Your task to perform on an android device: Open the calendar app, open the side menu, and click the "Day" option Image 0: 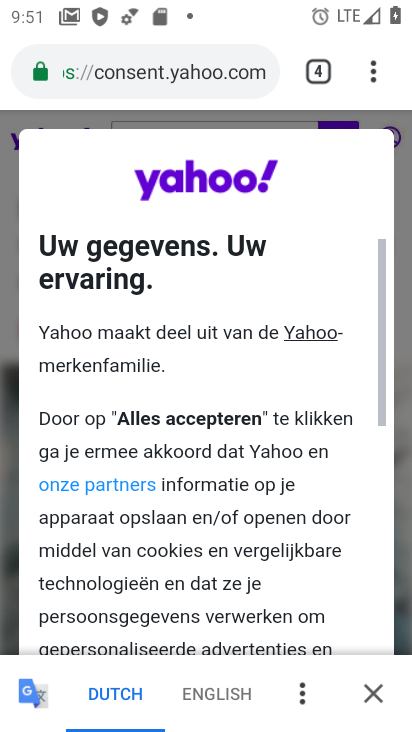
Step 0: press home button
Your task to perform on an android device: Open the calendar app, open the side menu, and click the "Day" option Image 1: 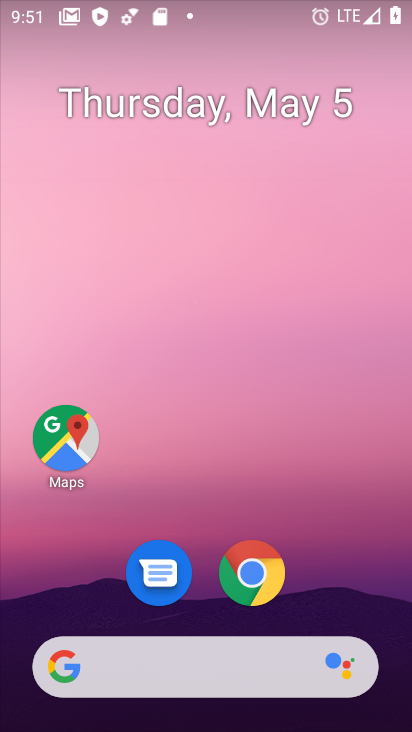
Step 1: drag from (235, 543) to (354, 31)
Your task to perform on an android device: Open the calendar app, open the side menu, and click the "Day" option Image 2: 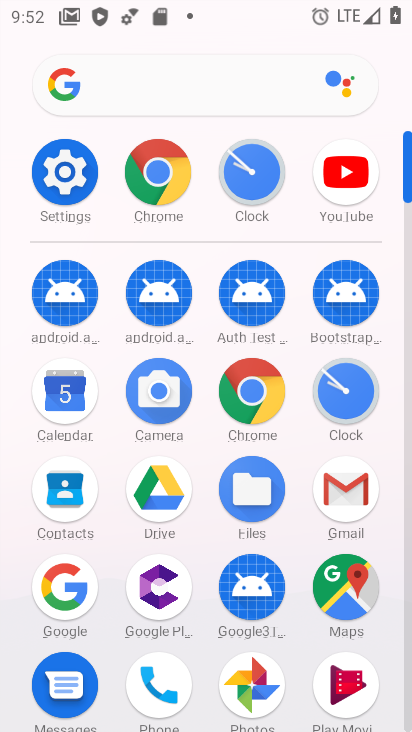
Step 2: click (72, 387)
Your task to perform on an android device: Open the calendar app, open the side menu, and click the "Day" option Image 3: 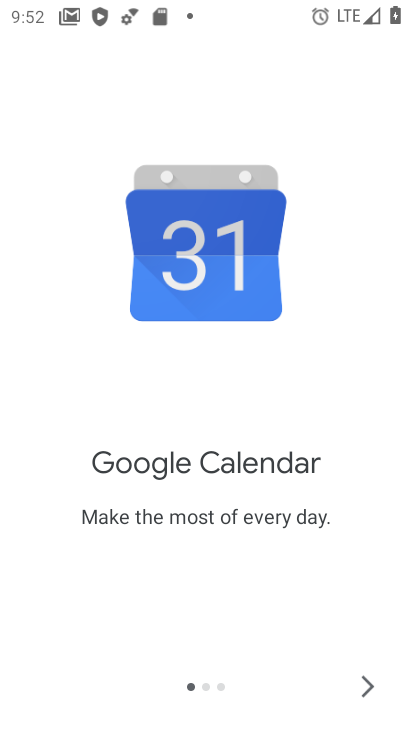
Step 3: click (378, 691)
Your task to perform on an android device: Open the calendar app, open the side menu, and click the "Day" option Image 4: 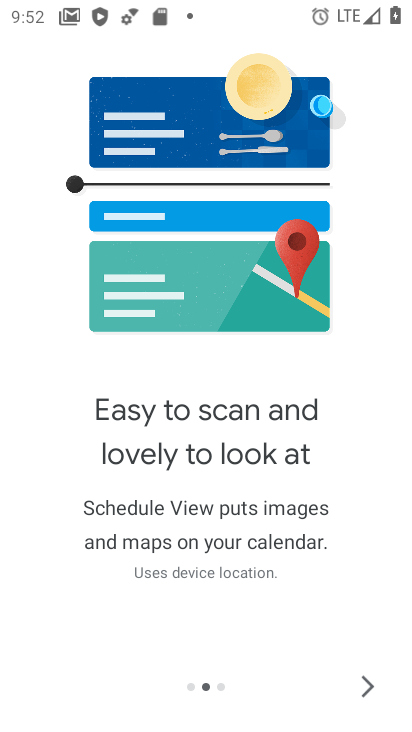
Step 4: click (371, 686)
Your task to perform on an android device: Open the calendar app, open the side menu, and click the "Day" option Image 5: 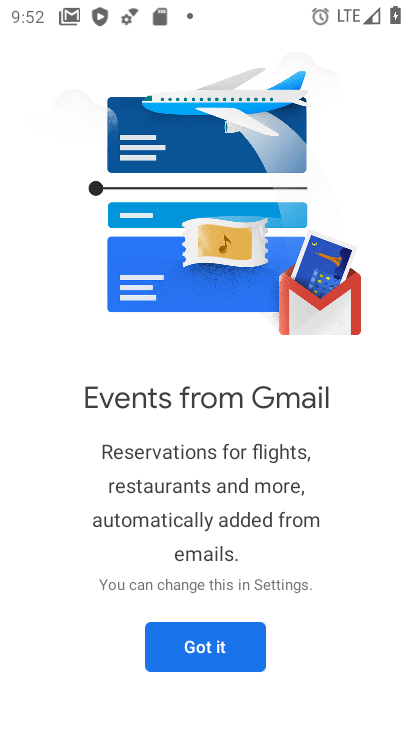
Step 5: click (221, 649)
Your task to perform on an android device: Open the calendar app, open the side menu, and click the "Day" option Image 6: 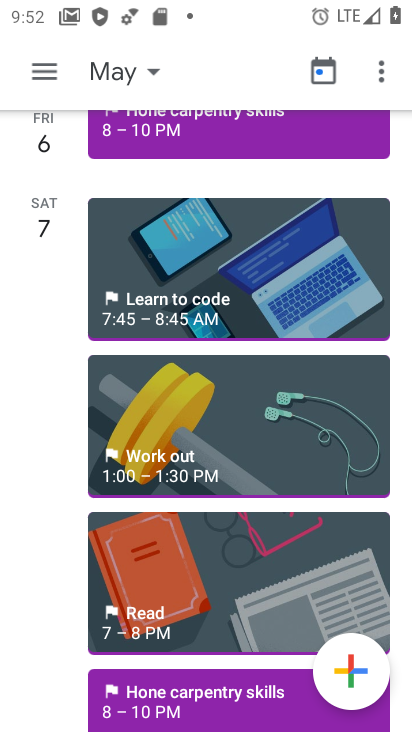
Step 6: click (33, 71)
Your task to perform on an android device: Open the calendar app, open the side menu, and click the "Day" option Image 7: 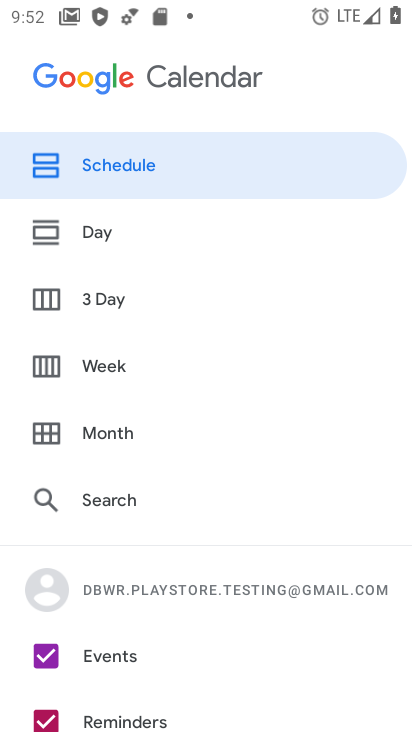
Step 7: click (103, 224)
Your task to perform on an android device: Open the calendar app, open the side menu, and click the "Day" option Image 8: 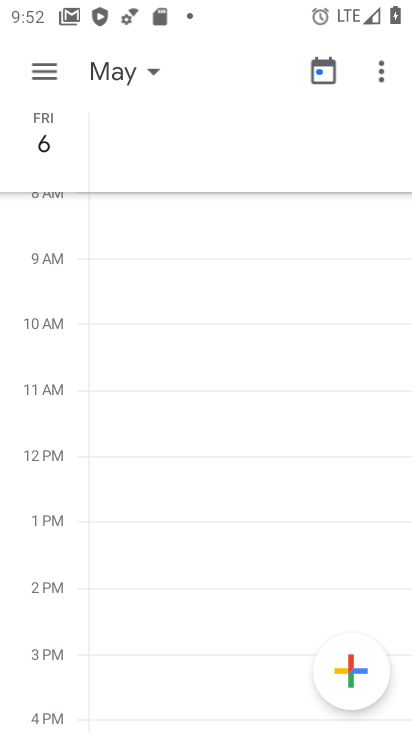
Step 8: task complete